Your task to perform on an android device: Open Chrome and go to the settings page Image 0: 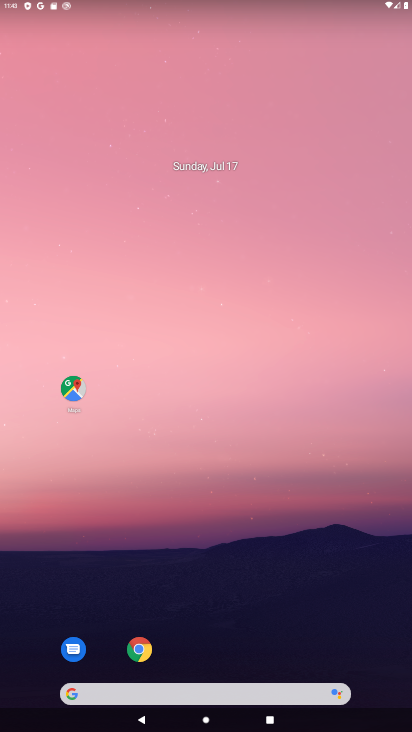
Step 0: click (140, 648)
Your task to perform on an android device: Open Chrome and go to the settings page Image 1: 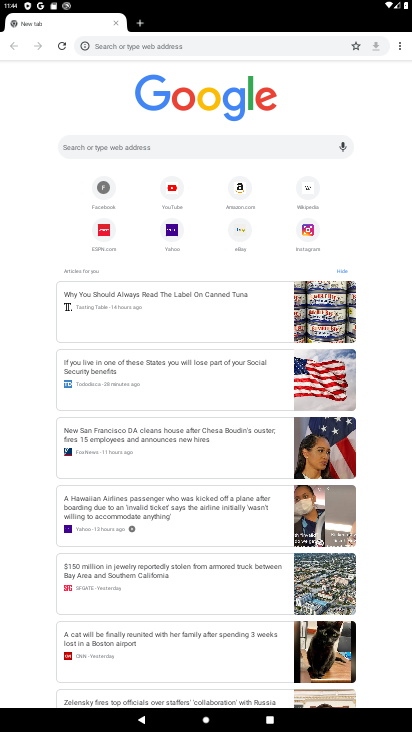
Step 1: click (396, 54)
Your task to perform on an android device: Open Chrome and go to the settings page Image 2: 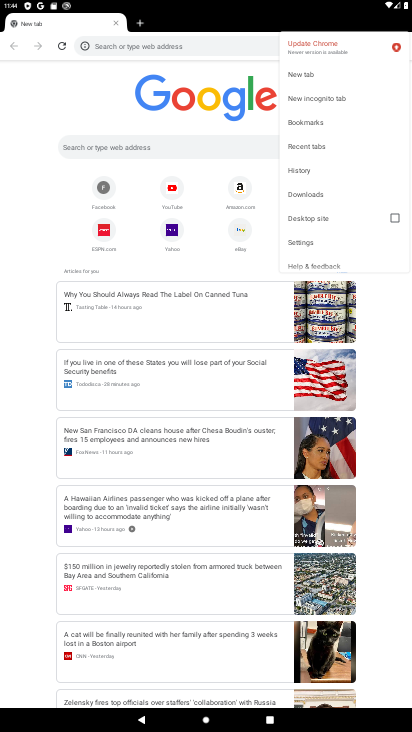
Step 2: click (309, 242)
Your task to perform on an android device: Open Chrome and go to the settings page Image 3: 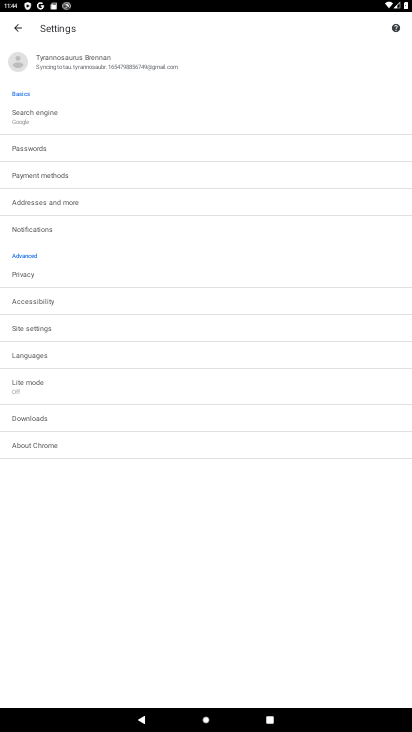
Step 3: task complete